Your task to perform on an android device: open a bookmark in the chrome app Image 0: 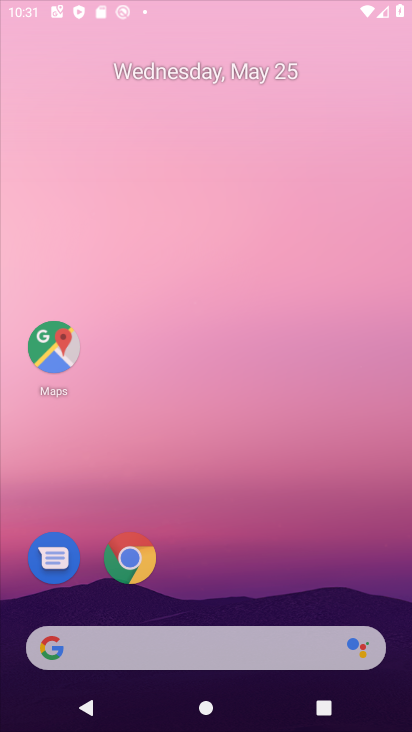
Step 0: drag from (230, 605) to (147, 170)
Your task to perform on an android device: open a bookmark in the chrome app Image 1: 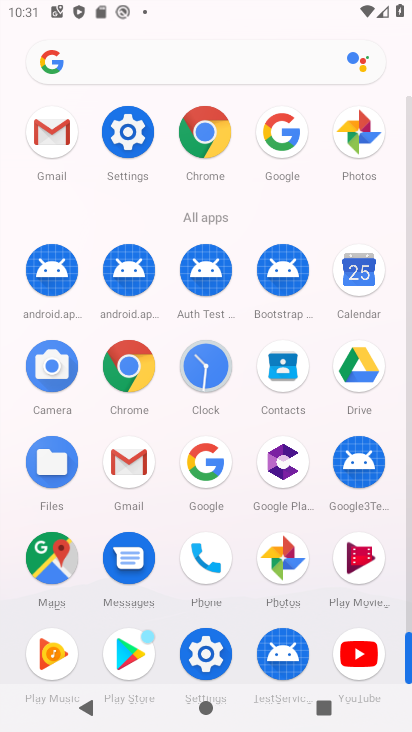
Step 1: click (202, 117)
Your task to perform on an android device: open a bookmark in the chrome app Image 2: 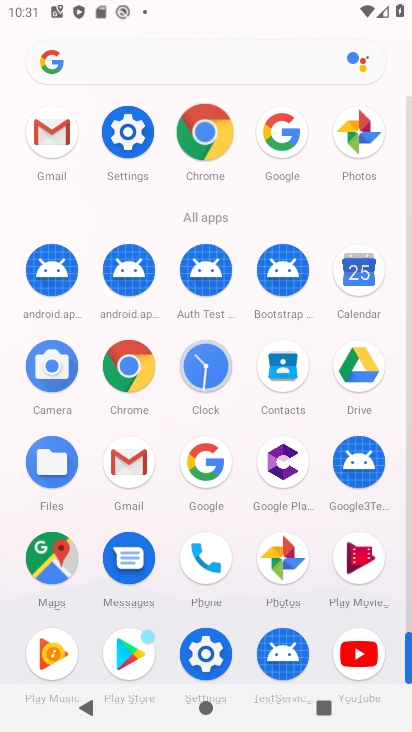
Step 2: click (202, 119)
Your task to perform on an android device: open a bookmark in the chrome app Image 3: 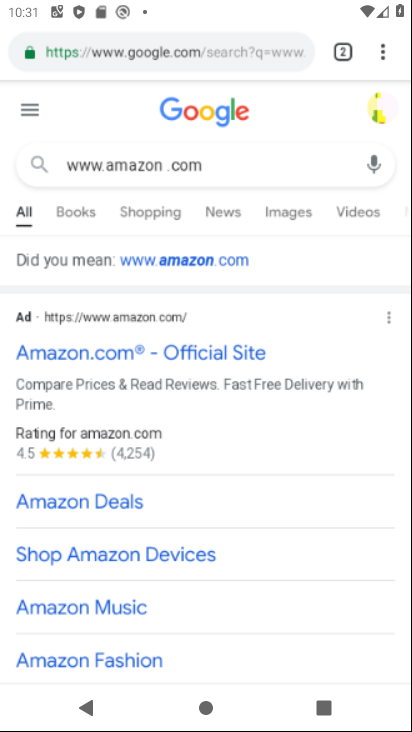
Step 3: click (207, 123)
Your task to perform on an android device: open a bookmark in the chrome app Image 4: 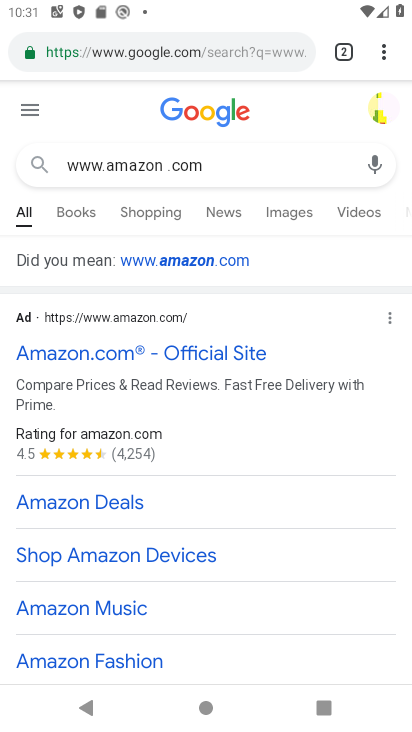
Step 4: press back button
Your task to perform on an android device: open a bookmark in the chrome app Image 5: 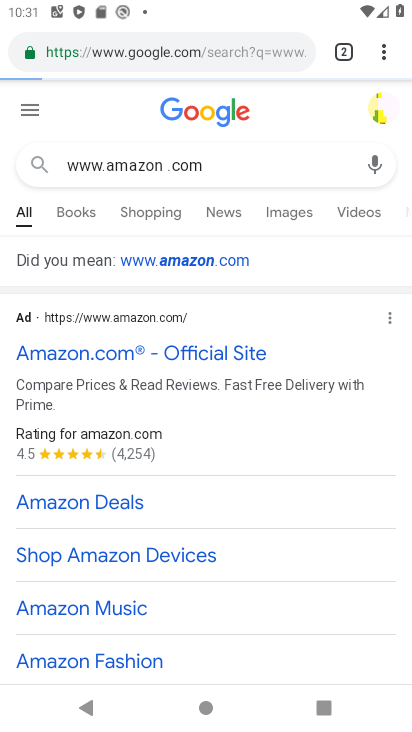
Step 5: press back button
Your task to perform on an android device: open a bookmark in the chrome app Image 6: 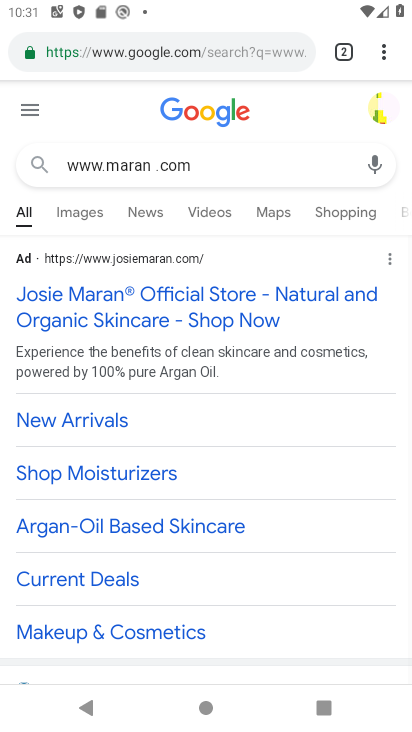
Step 6: press back button
Your task to perform on an android device: open a bookmark in the chrome app Image 7: 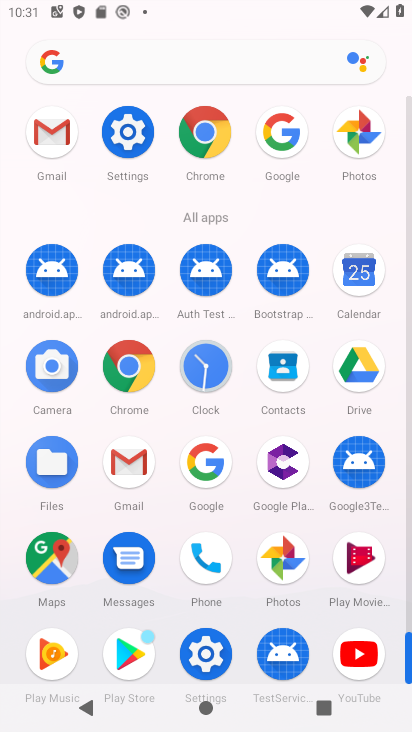
Step 7: click (203, 116)
Your task to perform on an android device: open a bookmark in the chrome app Image 8: 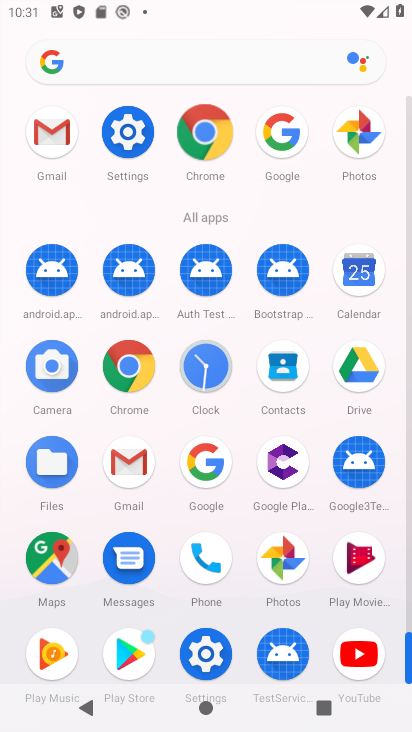
Step 8: click (203, 116)
Your task to perform on an android device: open a bookmark in the chrome app Image 9: 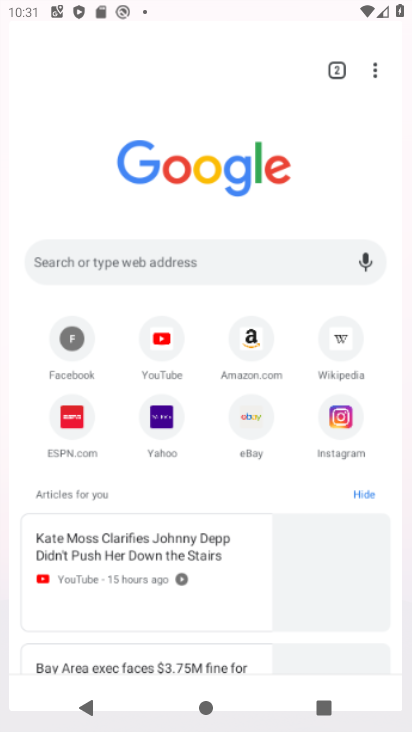
Step 9: click (204, 116)
Your task to perform on an android device: open a bookmark in the chrome app Image 10: 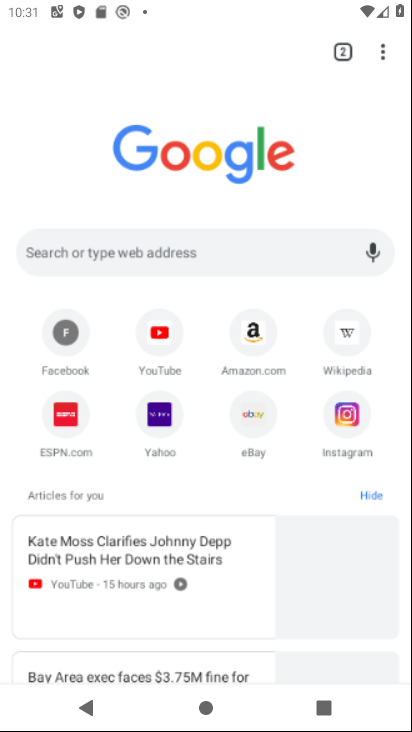
Step 10: click (204, 116)
Your task to perform on an android device: open a bookmark in the chrome app Image 11: 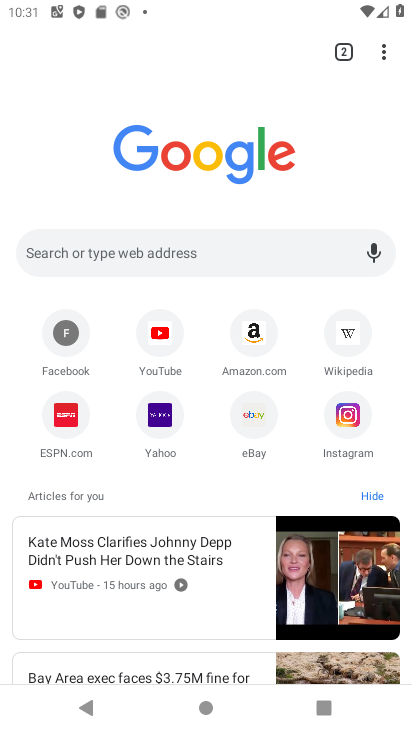
Step 11: drag from (380, 44) to (200, 191)
Your task to perform on an android device: open a bookmark in the chrome app Image 12: 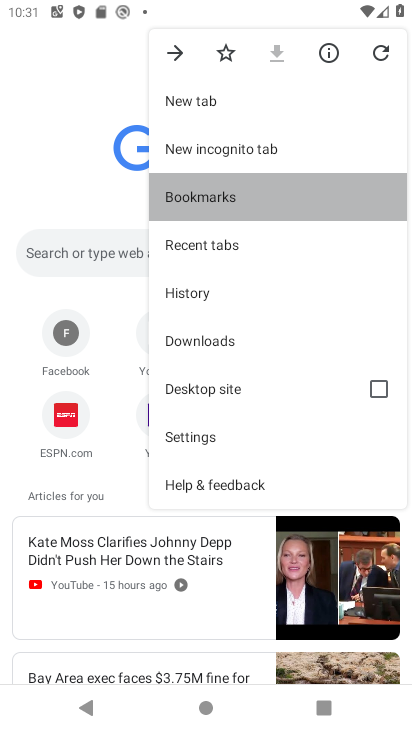
Step 12: click (200, 191)
Your task to perform on an android device: open a bookmark in the chrome app Image 13: 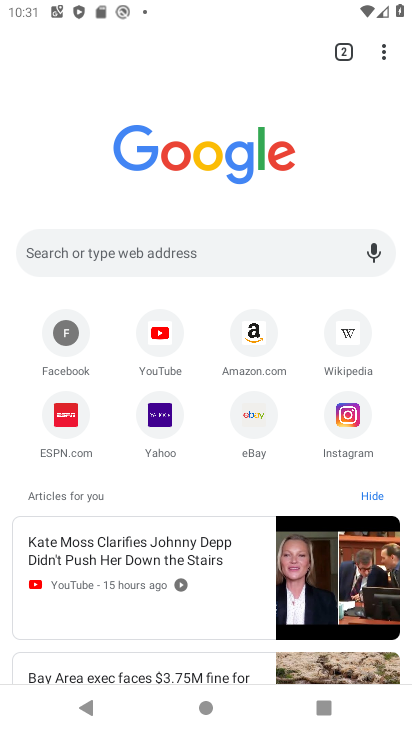
Step 13: click (202, 192)
Your task to perform on an android device: open a bookmark in the chrome app Image 14: 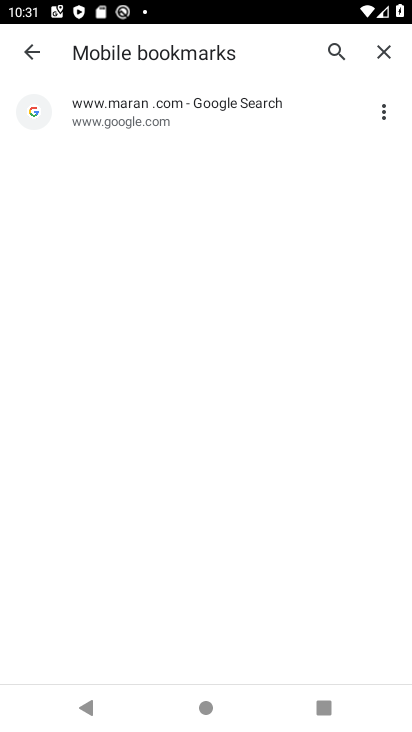
Step 14: task complete